Your task to perform on an android device: Check the weather Image 0: 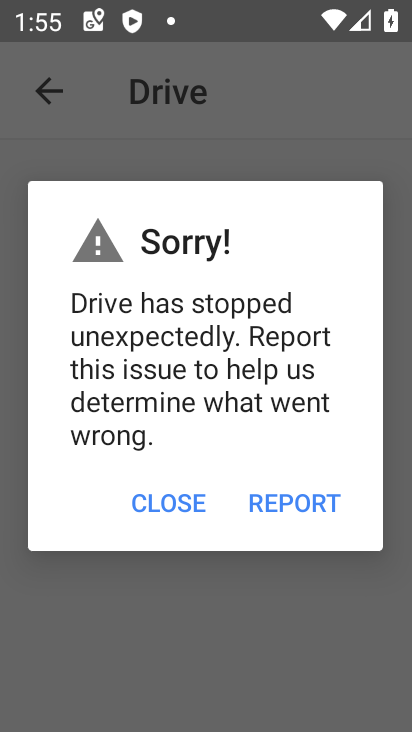
Step 0: press home button
Your task to perform on an android device: Check the weather Image 1: 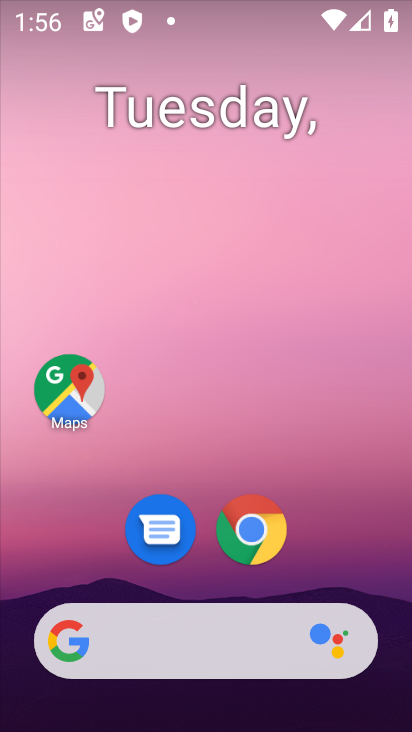
Step 1: drag from (195, 523) to (255, 94)
Your task to perform on an android device: Check the weather Image 2: 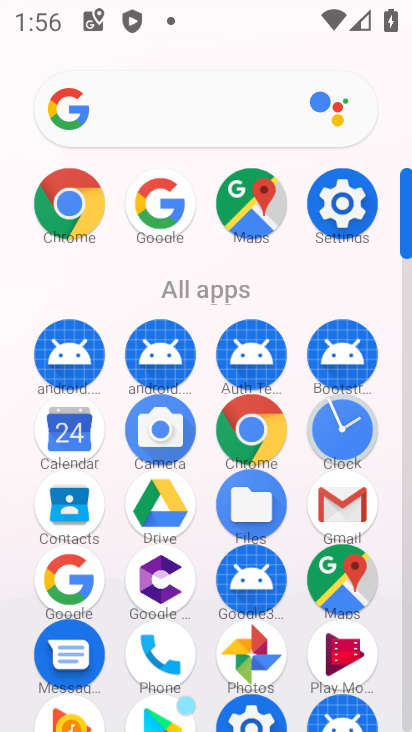
Step 2: click (70, 583)
Your task to perform on an android device: Check the weather Image 3: 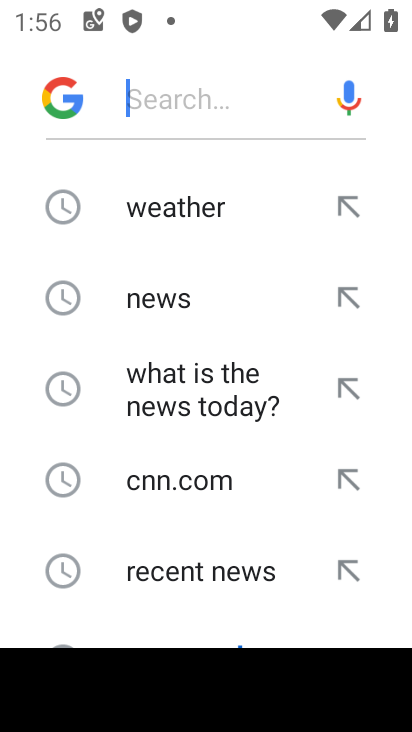
Step 3: click (174, 212)
Your task to perform on an android device: Check the weather Image 4: 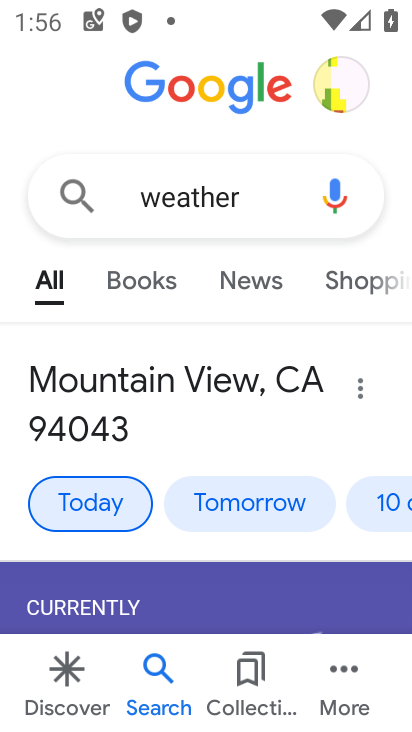
Step 4: task complete